Your task to perform on an android device: Open network settings Image 0: 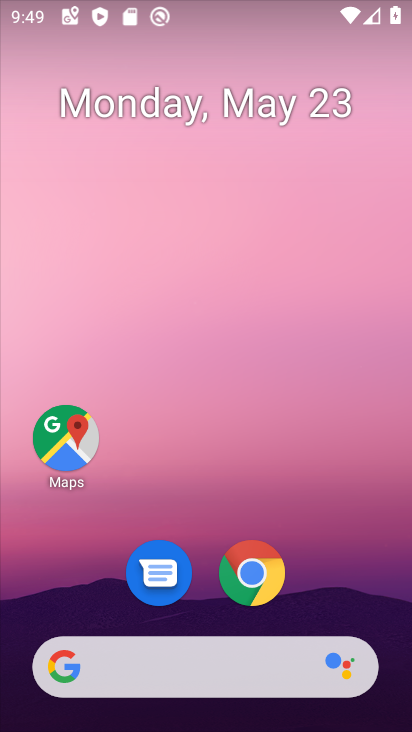
Step 0: drag from (391, 621) to (375, 105)
Your task to perform on an android device: Open network settings Image 1: 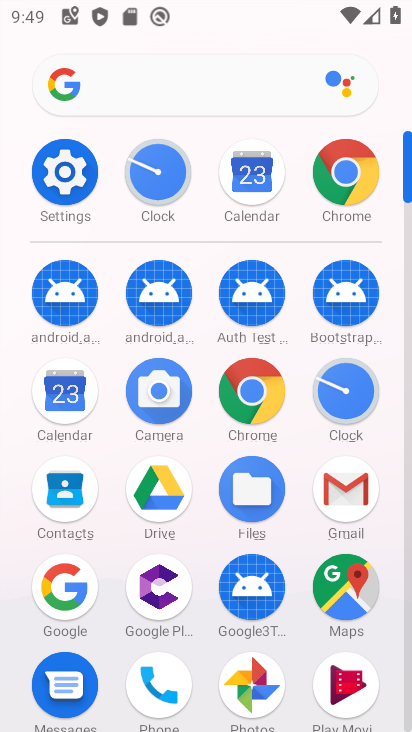
Step 1: click (84, 194)
Your task to perform on an android device: Open network settings Image 2: 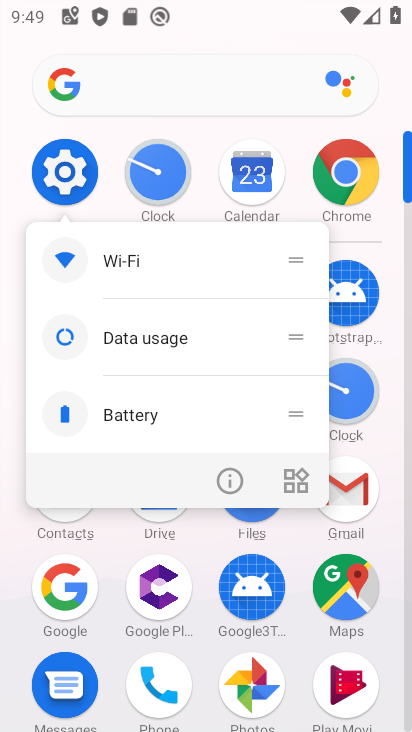
Step 2: click (84, 194)
Your task to perform on an android device: Open network settings Image 3: 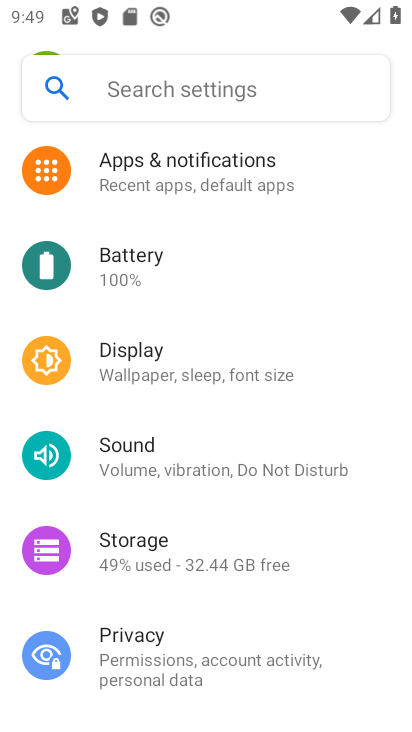
Step 3: drag from (344, 551) to (345, 493)
Your task to perform on an android device: Open network settings Image 4: 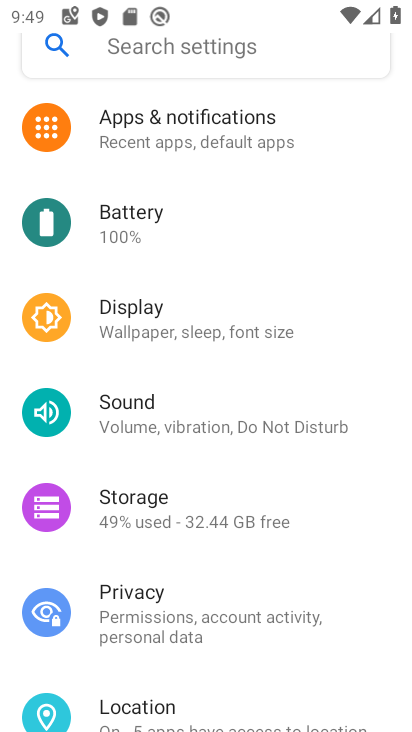
Step 4: drag from (370, 590) to (365, 493)
Your task to perform on an android device: Open network settings Image 5: 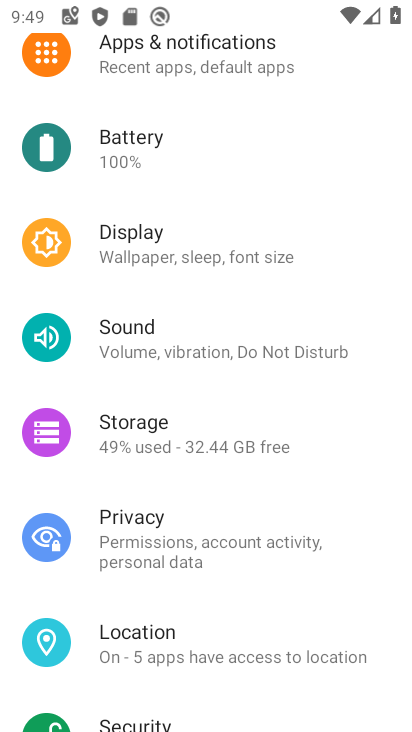
Step 5: drag from (385, 603) to (371, 503)
Your task to perform on an android device: Open network settings Image 6: 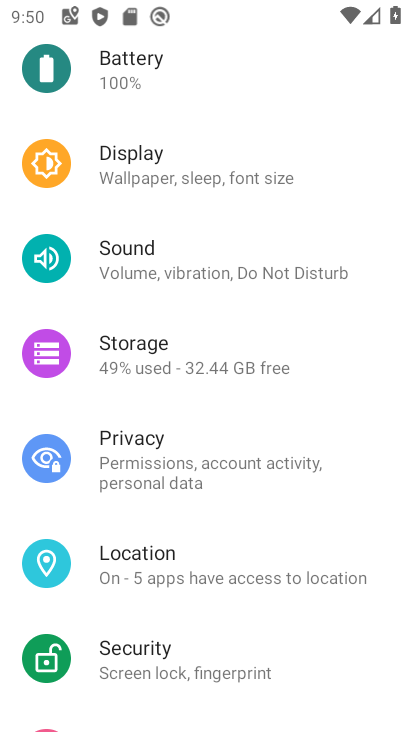
Step 6: drag from (374, 636) to (367, 525)
Your task to perform on an android device: Open network settings Image 7: 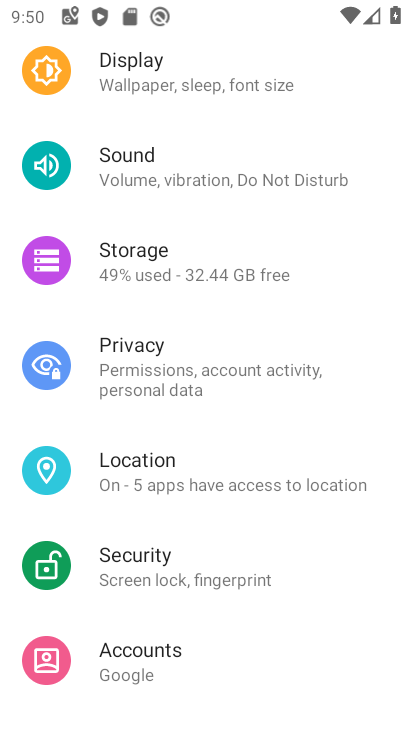
Step 7: drag from (383, 621) to (373, 527)
Your task to perform on an android device: Open network settings Image 8: 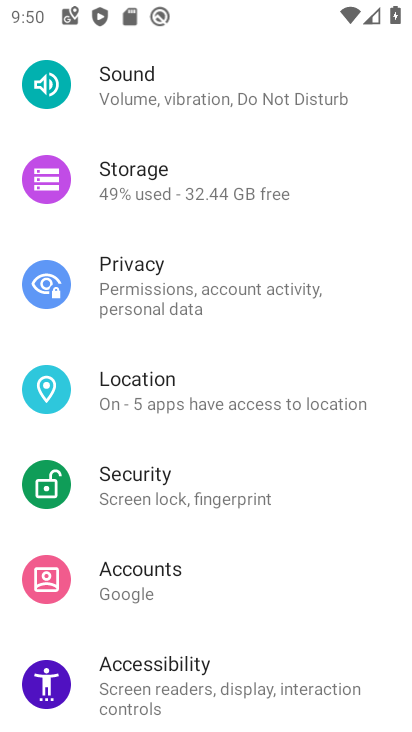
Step 8: drag from (372, 637) to (373, 536)
Your task to perform on an android device: Open network settings Image 9: 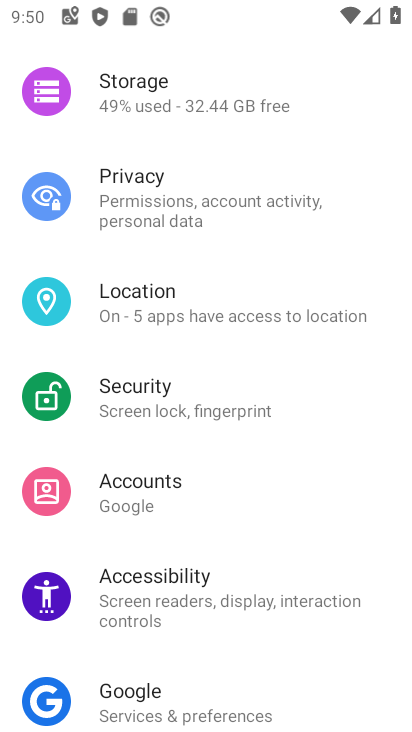
Step 9: drag from (357, 579) to (352, 484)
Your task to perform on an android device: Open network settings Image 10: 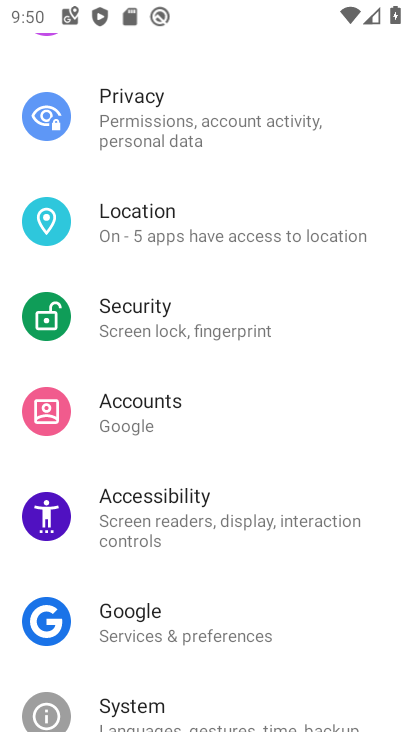
Step 10: drag from (350, 624) to (354, 506)
Your task to perform on an android device: Open network settings Image 11: 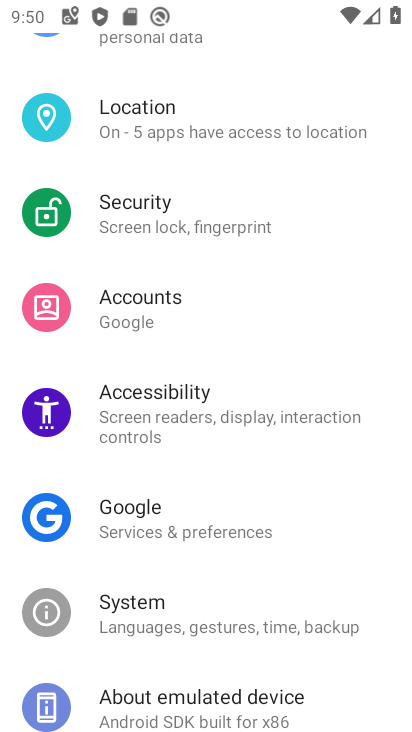
Step 11: drag from (381, 635) to (375, 498)
Your task to perform on an android device: Open network settings Image 12: 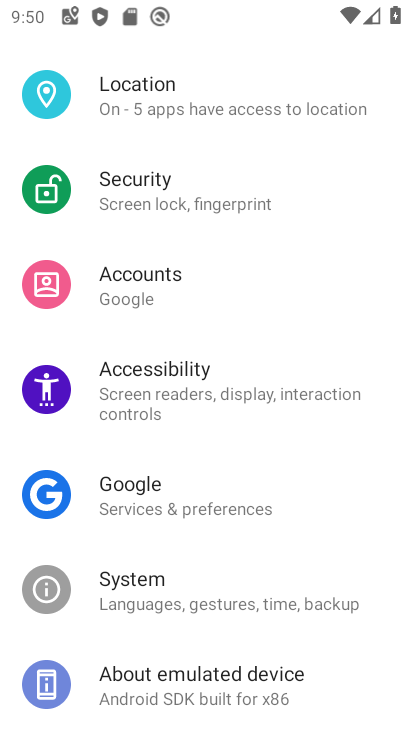
Step 12: drag from (376, 350) to (387, 458)
Your task to perform on an android device: Open network settings Image 13: 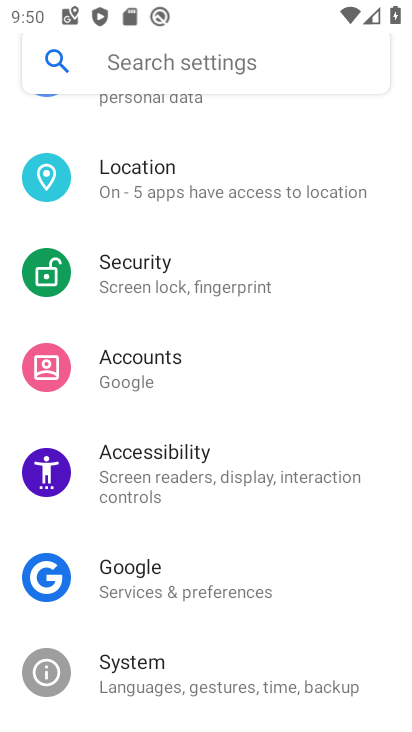
Step 13: drag from (372, 355) to (370, 475)
Your task to perform on an android device: Open network settings Image 14: 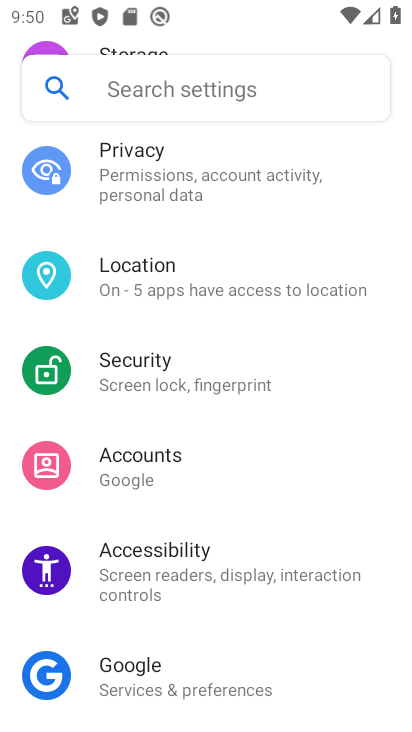
Step 14: drag from (364, 345) to (364, 448)
Your task to perform on an android device: Open network settings Image 15: 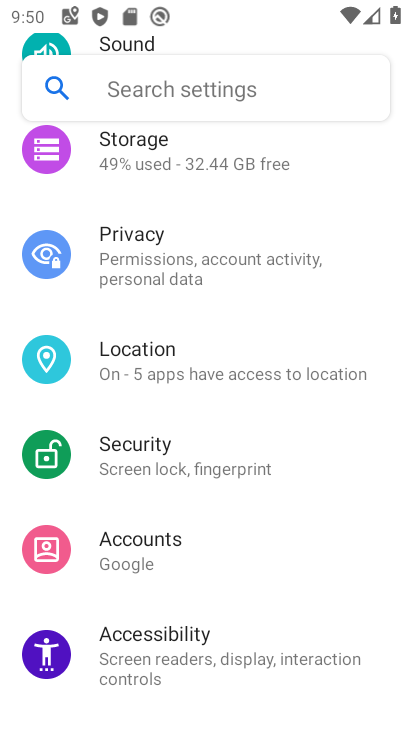
Step 15: drag from (357, 304) to (354, 427)
Your task to perform on an android device: Open network settings Image 16: 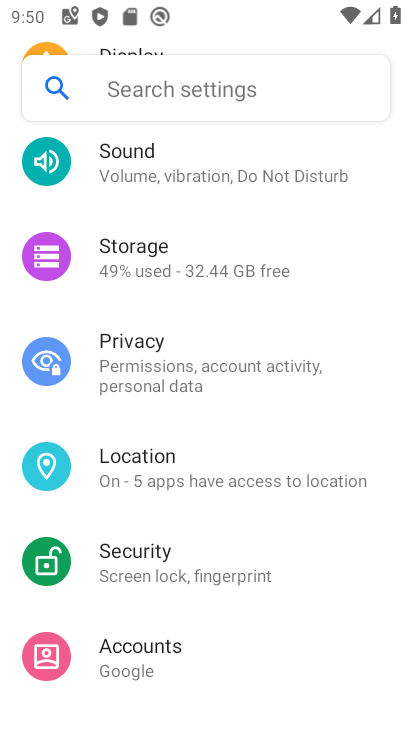
Step 16: drag from (358, 311) to (362, 423)
Your task to perform on an android device: Open network settings Image 17: 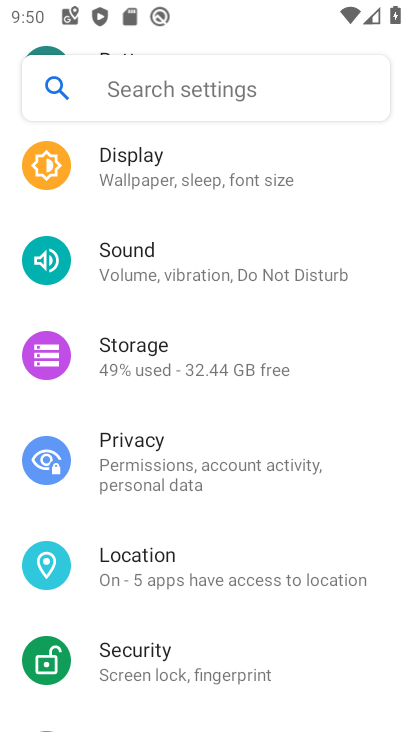
Step 17: drag from (357, 312) to (360, 410)
Your task to perform on an android device: Open network settings Image 18: 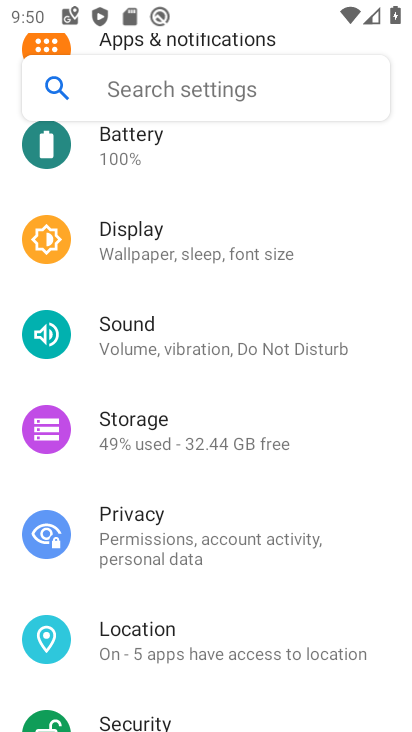
Step 18: drag from (361, 318) to (365, 390)
Your task to perform on an android device: Open network settings Image 19: 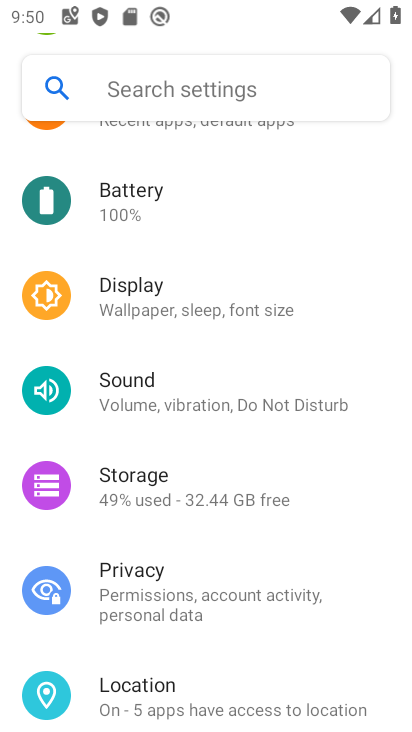
Step 19: drag from (358, 287) to (358, 371)
Your task to perform on an android device: Open network settings Image 20: 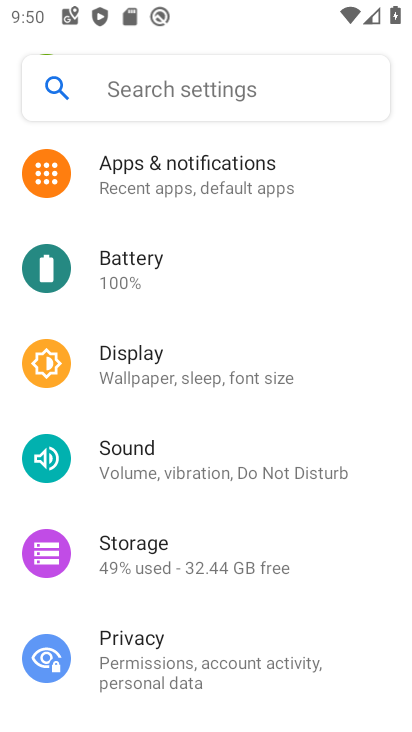
Step 20: drag from (366, 276) to (379, 377)
Your task to perform on an android device: Open network settings Image 21: 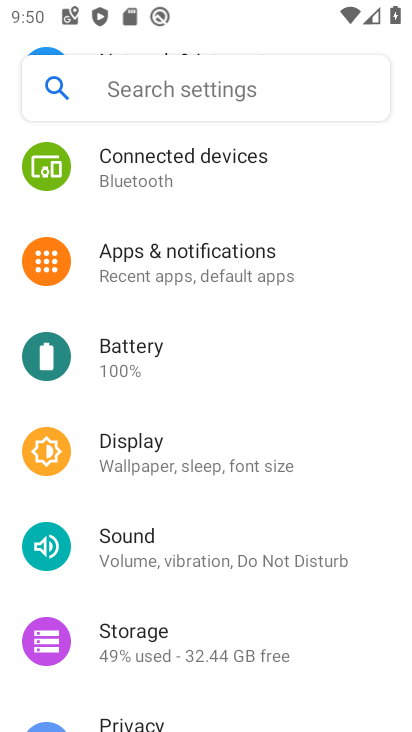
Step 21: drag from (364, 262) to (375, 394)
Your task to perform on an android device: Open network settings Image 22: 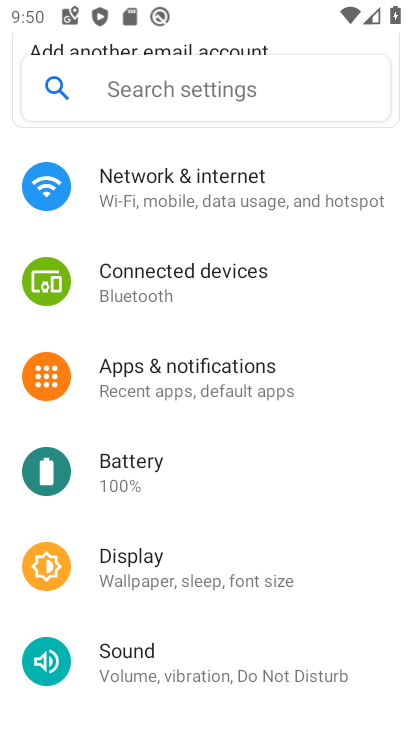
Step 22: drag from (352, 286) to (355, 387)
Your task to perform on an android device: Open network settings Image 23: 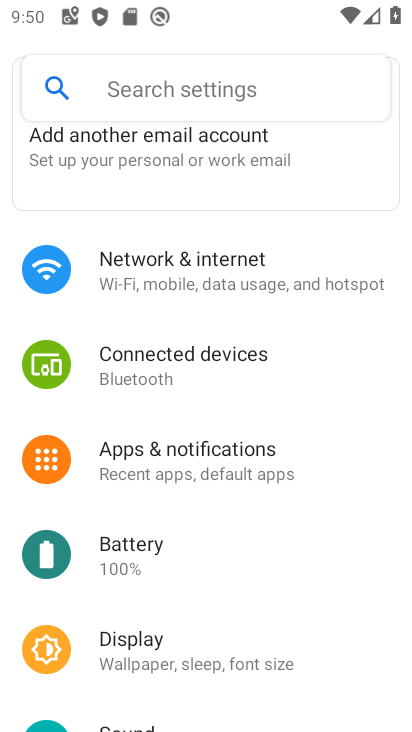
Step 23: click (269, 289)
Your task to perform on an android device: Open network settings Image 24: 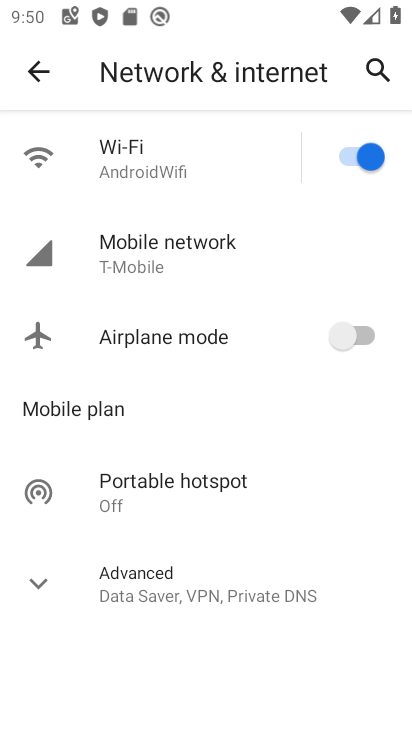
Step 24: task complete